Your task to perform on an android device: toggle wifi Image 0: 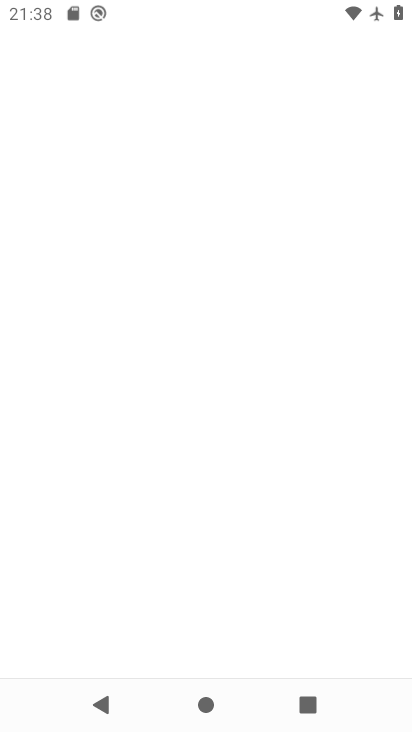
Step 0: drag from (253, 538) to (289, 446)
Your task to perform on an android device: toggle wifi Image 1: 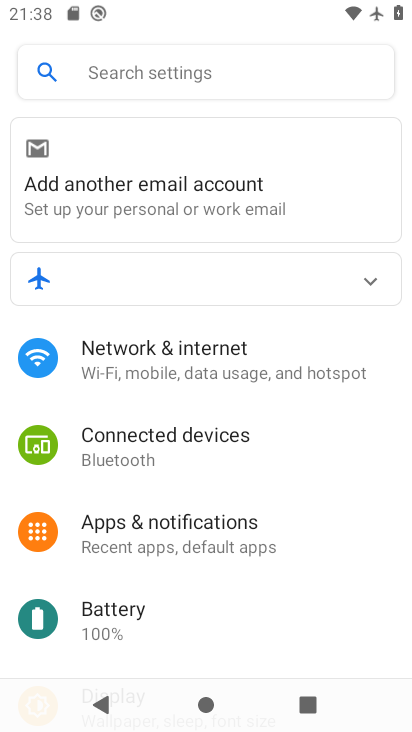
Step 1: press home button
Your task to perform on an android device: toggle wifi Image 2: 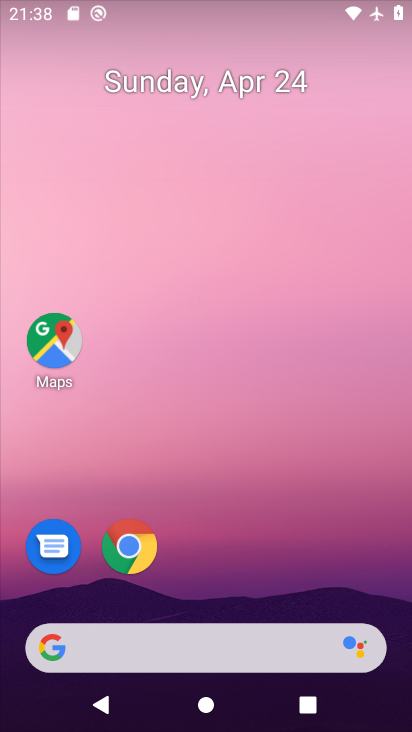
Step 2: drag from (275, 525) to (330, 225)
Your task to perform on an android device: toggle wifi Image 3: 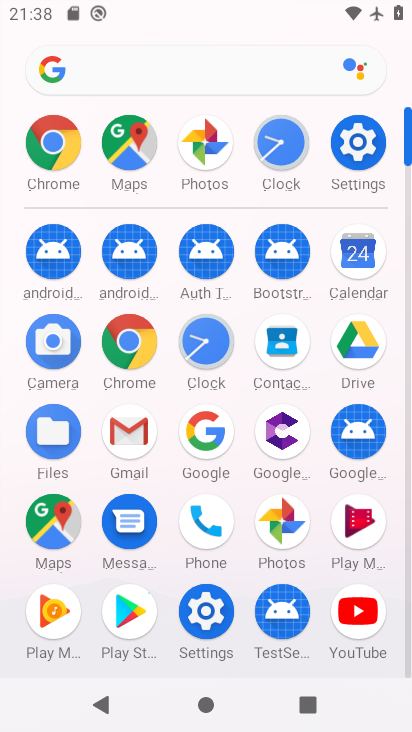
Step 3: click (356, 139)
Your task to perform on an android device: toggle wifi Image 4: 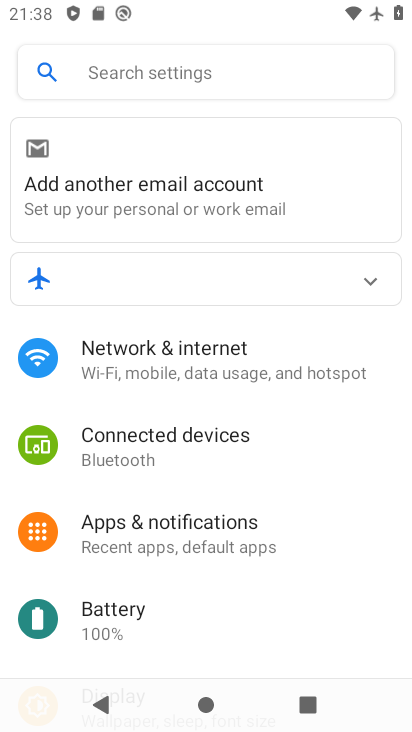
Step 4: click (256, 376)
Your task to perform on an android device: toggle wifi Image 5: 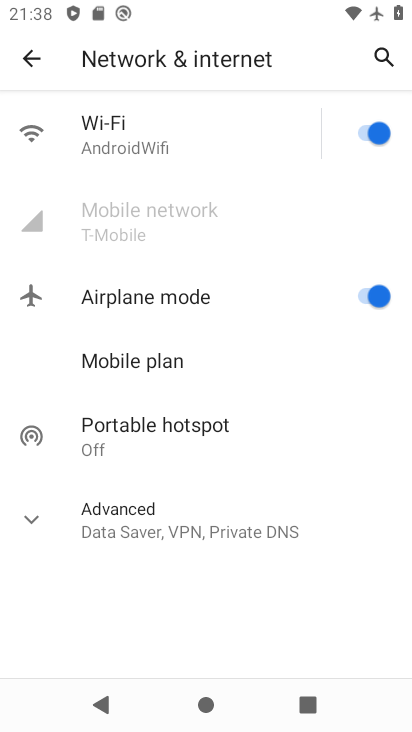
Step 5: click (362, 127)
Your task to perform on an android device: toggle wifi Image 6: 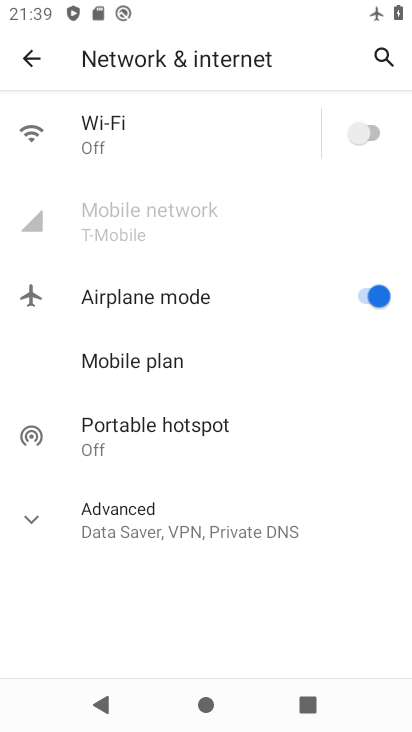
Step 6: task complete